Your task to perform on an android device: remove spam from my inbox in the gmail app Image 0: 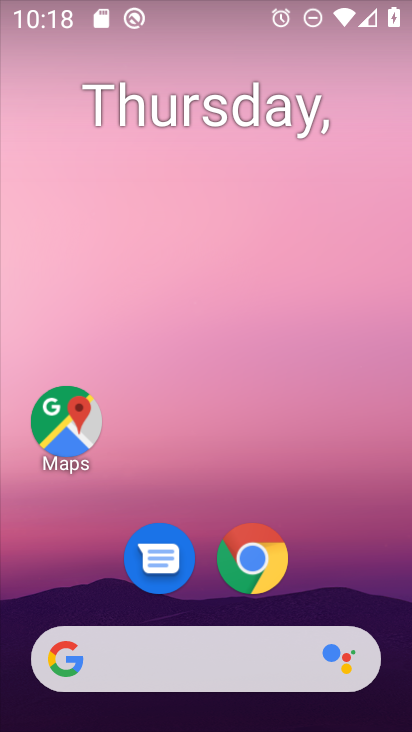
Step 0: drag from (390, 640) to (344, 93)
Your task to perform on an android device: remove spam from my inbox in the gmail app Image 1: 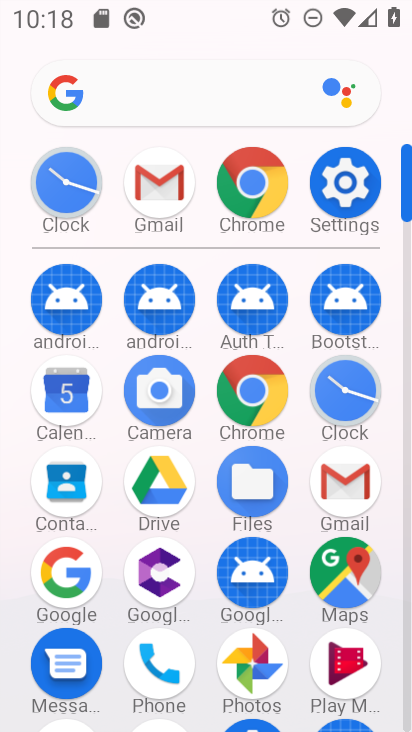
Step 1: click (406, 708)
Your task to perform on an android device: remove spam from my inbox in the gmail app Image 2: 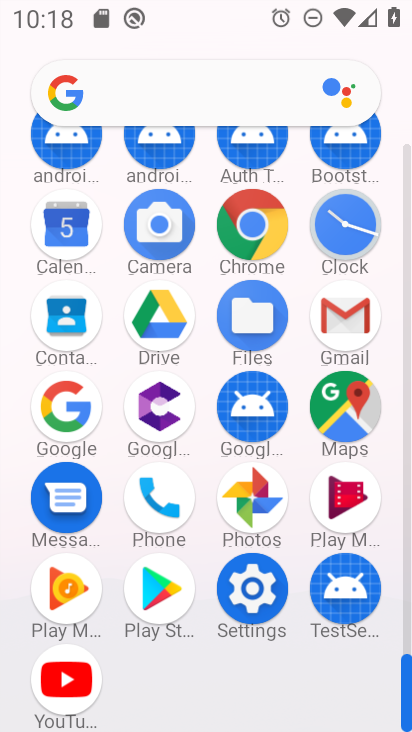
Step 2: click (342, 311)
Your task to perform on an android device: remove spam from my inbox in the gmail app Image 3: 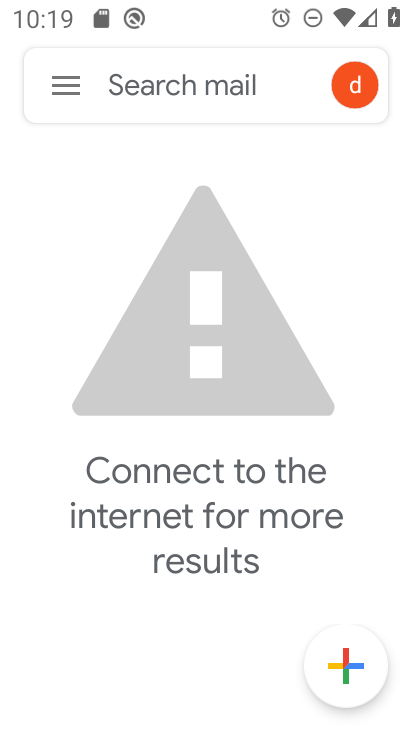
Step 3: click (65, 79)
Your task to perform on an android device: remove spam from my inbox in the gmail app Image 4: 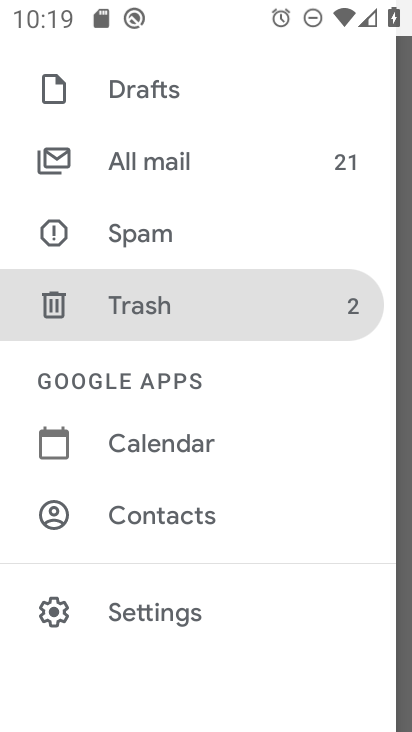
Step 4: click (172, 230)
Your task to perform on an android device: remove spam from my inbox in the gmail app Image 5: 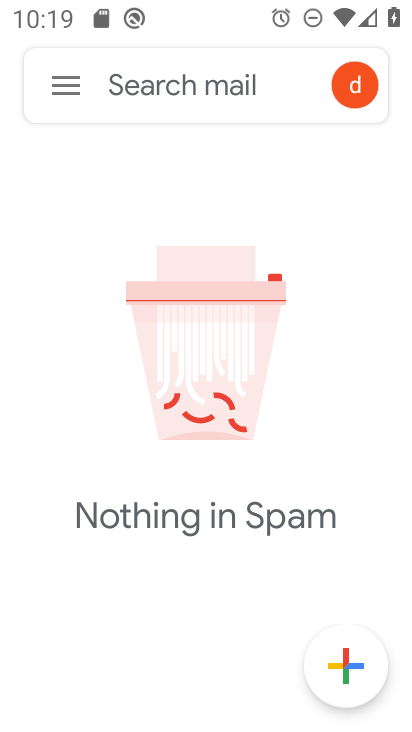
Step 5: task complete